Your task to perform on an android device: Open the Play Movies app and select the watchlist tab. Image 0: 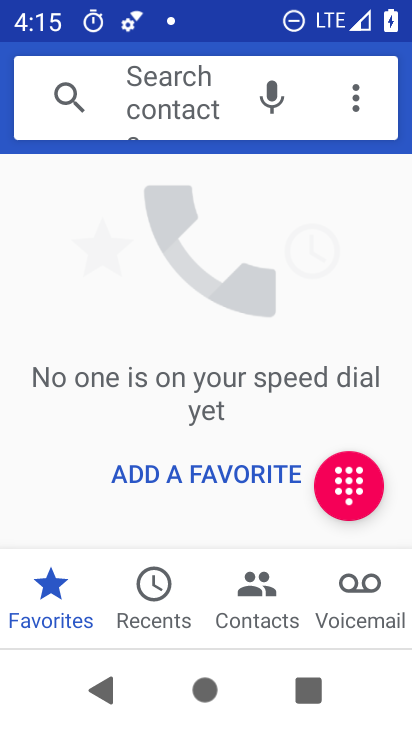
Step 0: press home button
Your task to perform on an android device: Open the Play Movies app and select the watchlist tab. Image 1: 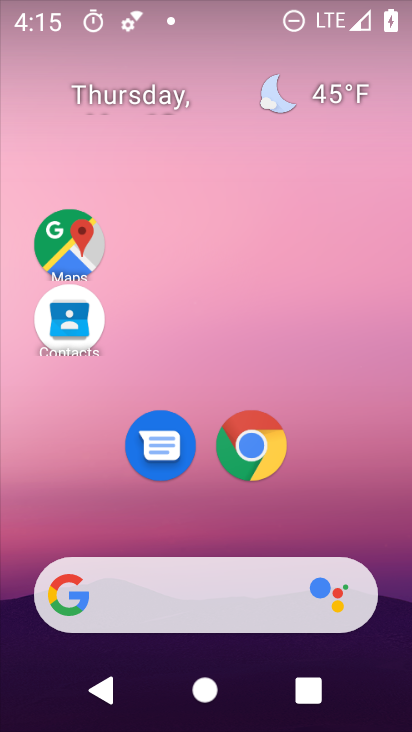
Step 1: drag from (342, 520) to (303, 25)
Your task to perform on an android device: Open the Play Movies app and select the watchlist tab. Image 2: 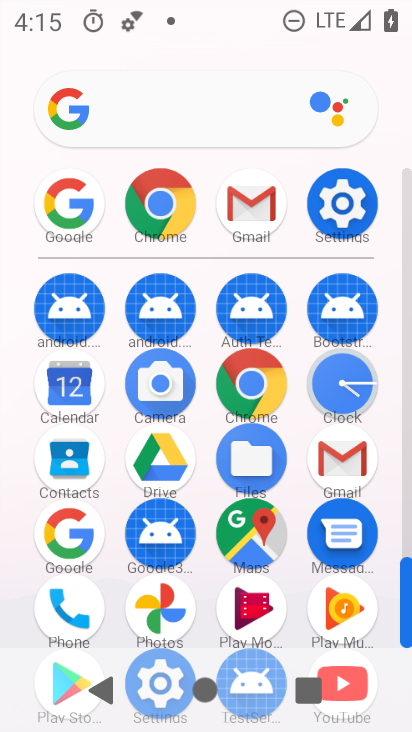
Step 2: drag from (202, 623) to (196, 360)
Your task to perform on an android device: Open the Play Movies app and select the watchlist tab. Image 3: 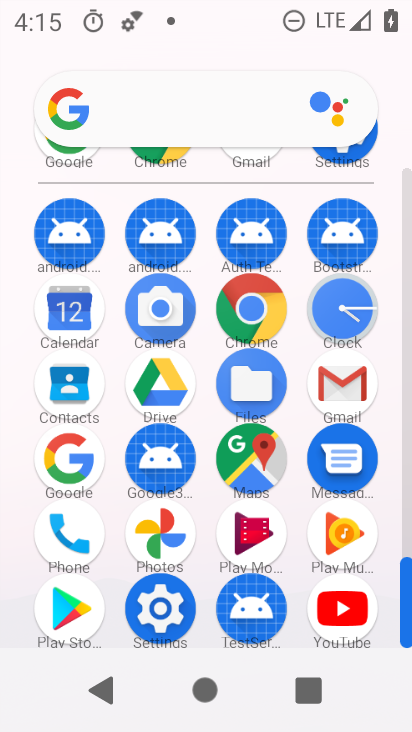
Step 3: click (249, 532)
Your task to perform on an android device: Open the Play Movies app and select the watchlist tab. Image 4: 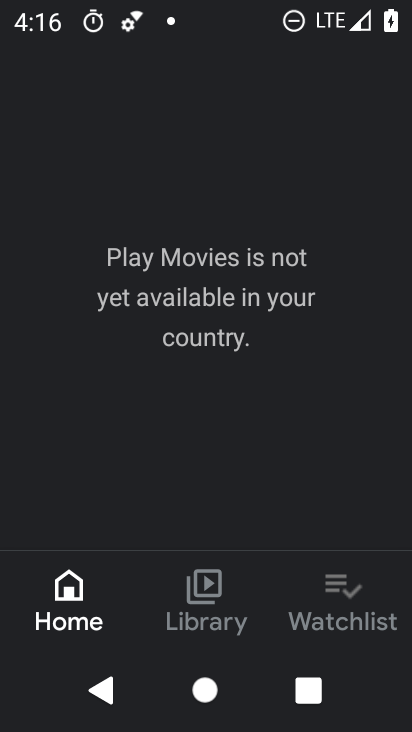
Step 4: click (346, 590)
Your task to perform on an android device: Open the Play Movies app and select the watchlist tab. Image 5: 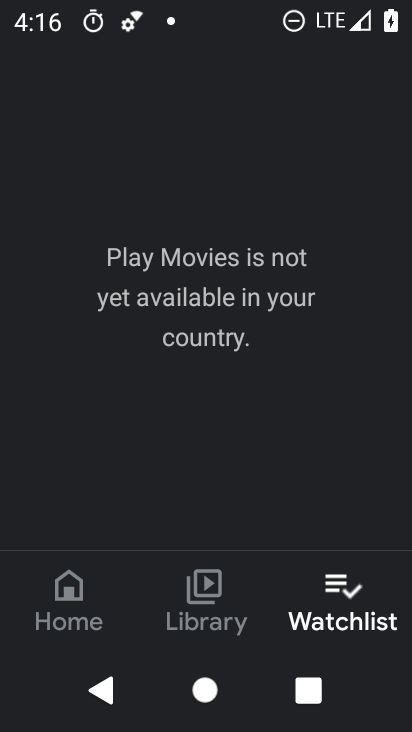
Step 5: task complete